Your task to perform on an android device: check storage Image 0: 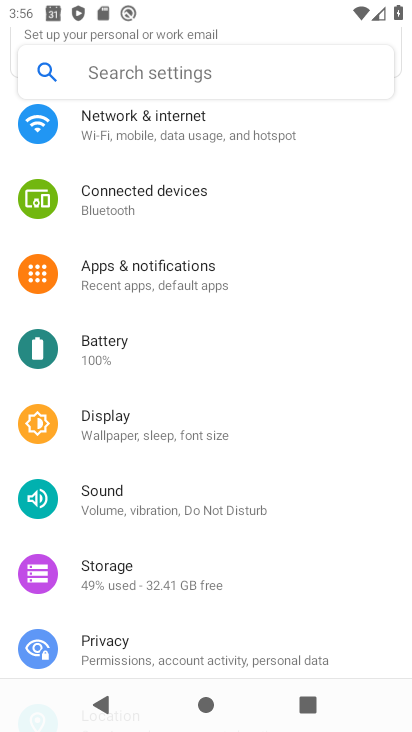
Step 0: click (108, 590)
Your task to perform on an android device: check storage Image 1: 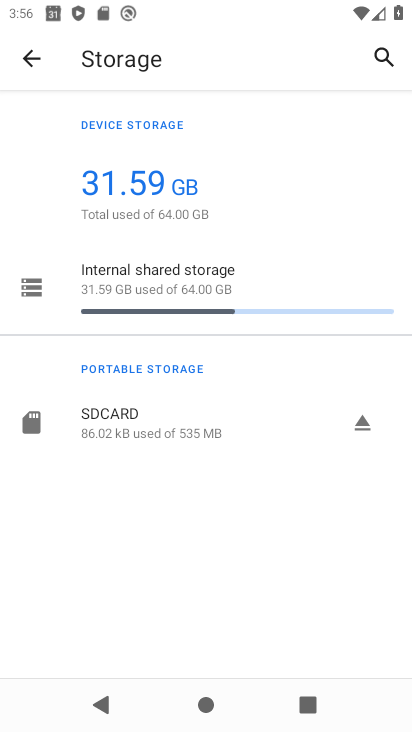
Step 1: task complete